Your task to perform on an android device: Open Youtube and go to the subscriptions tab Image 0: 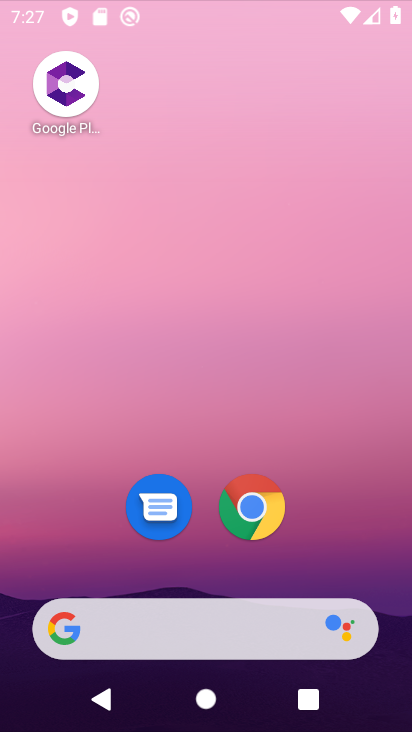
Step 0: click (335, 200)
Your task to perform on an android device: Open Youtube and go to the subscriptions tab Image 1: 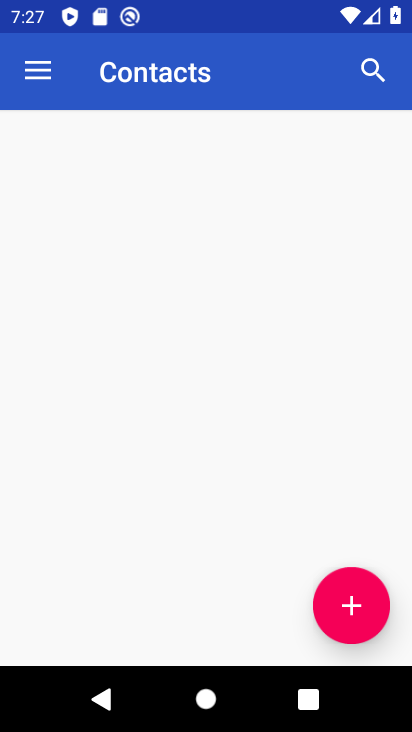
Step 1: drag from (341, 562) to (326, 347)
Your task to perform on an android device: Open Youtube and go to the subscriptions tab Image 2: 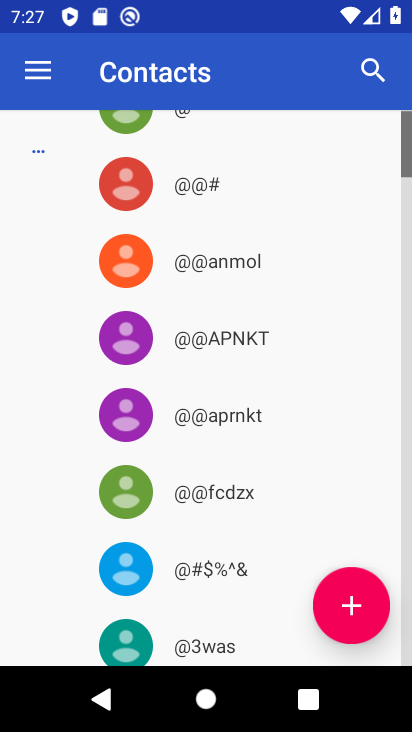
Step 2: press home button
Your task to perform on an android device: Open Youtube and go to the subscriptions tab Image 3: 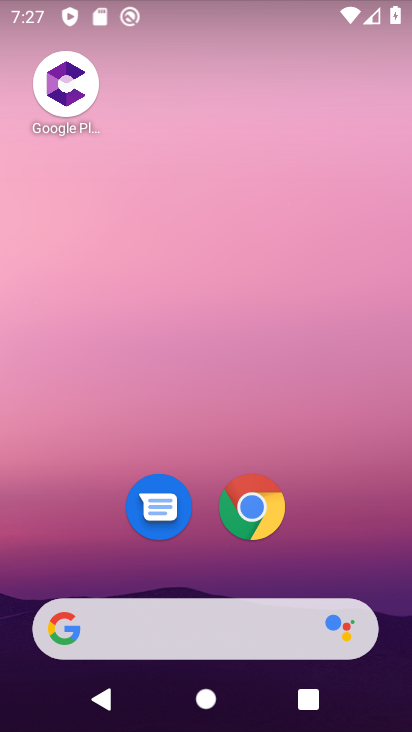
Step 3: click (243, 524)
Your task to perform on an android device: Open Youtube and go to the subscriptions tab Image 4: 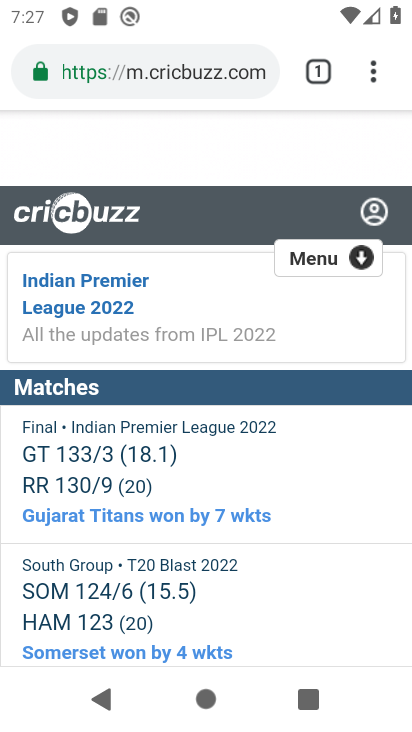
Step 4: press home button
Your task to perform on an android device: Open Youtube and go to the subscriptions tab Image 5: 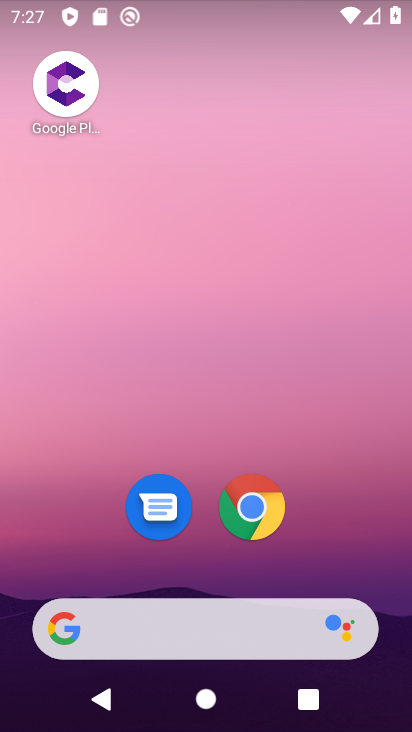
Step 5: drag from (335, 406) to (304, 158)
Your task to perform on an android device: Open Youtube and go to the subscriptions tab Image 6: 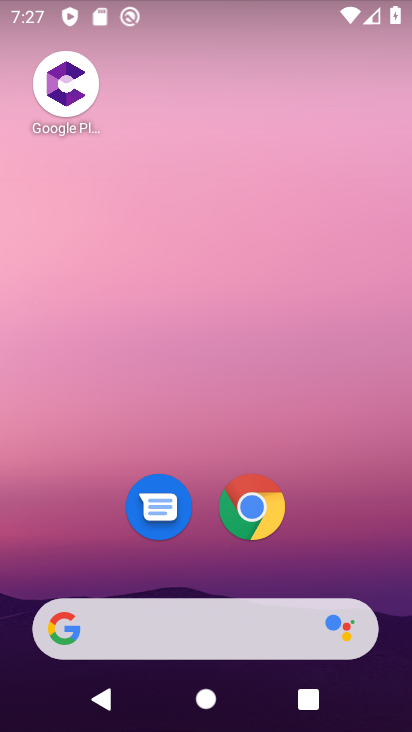
Step 6: drag from (311, 552) to (300, 147)
Your task to perform on an android device: Open Youtube and go to the subscriptions tab Image 7: 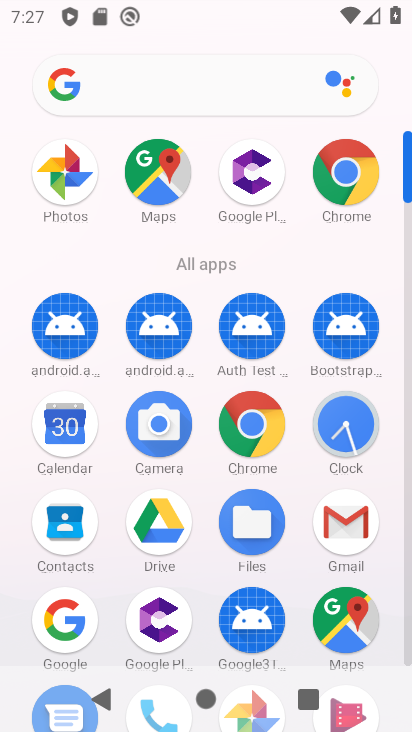
Step 7: drag from (270, 607) to (306, 247)
Your task to perform on an android device: Open Youtube and go to the subscriptions tab Image 8: 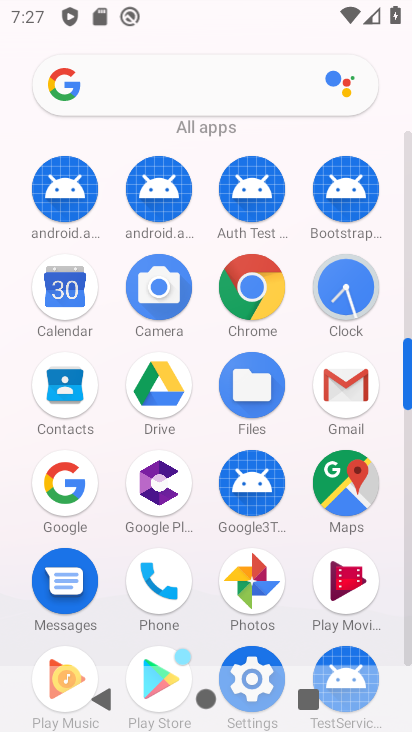
Step 8: drag from (268, 627) to (296, 247)
Your task to perform on an android device: Open Youtube and go to the subscriptions tab Image 9: 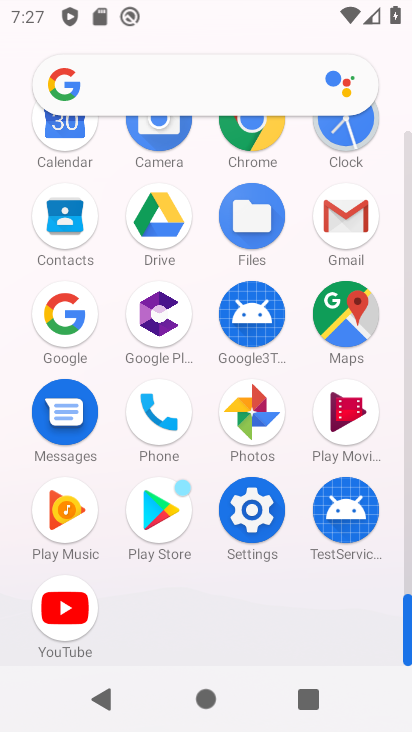
Step 9: click (62, 620)
Your task to perform on an android device: Open Youtube and go to the subscriptions tab Image 10: 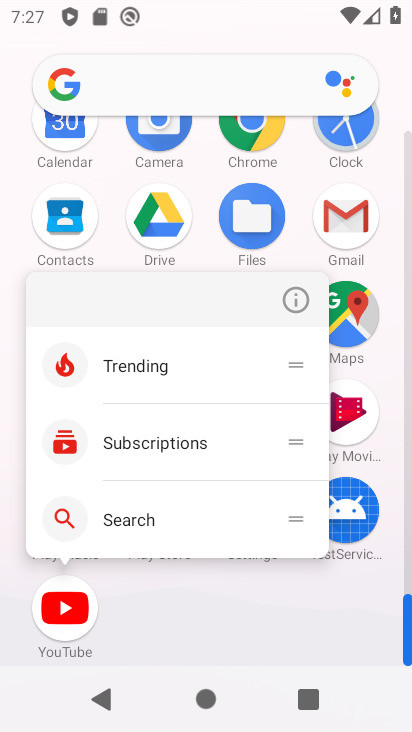
Step 10: click (59, 597)
Your task to perform on an android device: Open Youtube and go to the subscriptions tab Image 11: 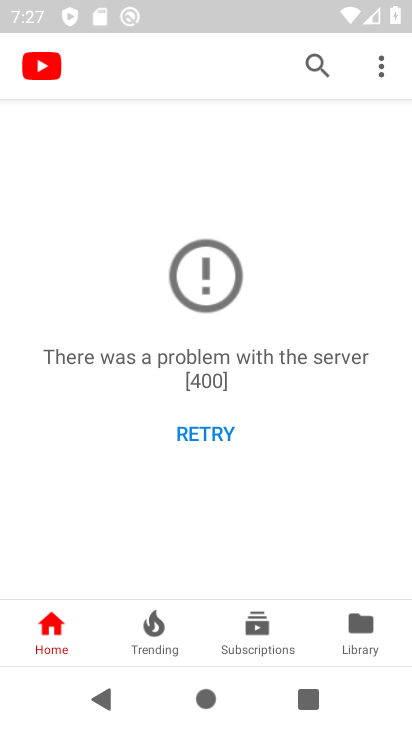
Step 11: click (259, 640)
Your task to perform on an android device: Open Youtube and go to the subscriptions tab Image 12: 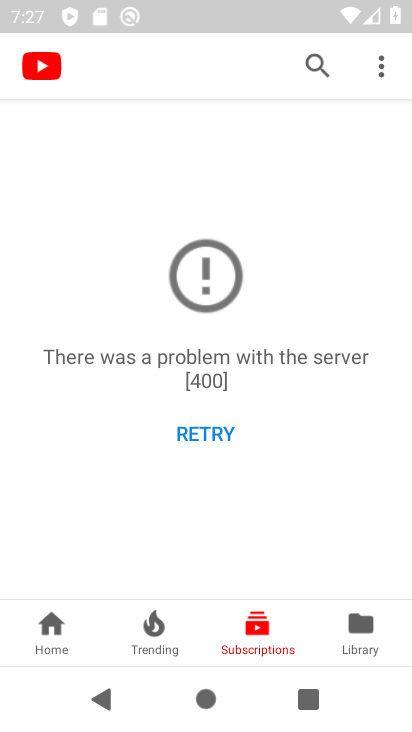
Step 12: task complete